Your task to perform on an android device: Go to Wikipedia Image 0: 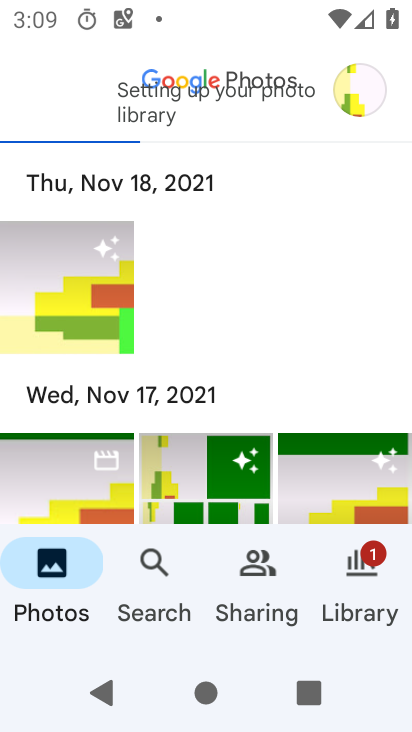
Step 0: press home button
Your task to perform on an android device: Go to Wikipedia Image 1: 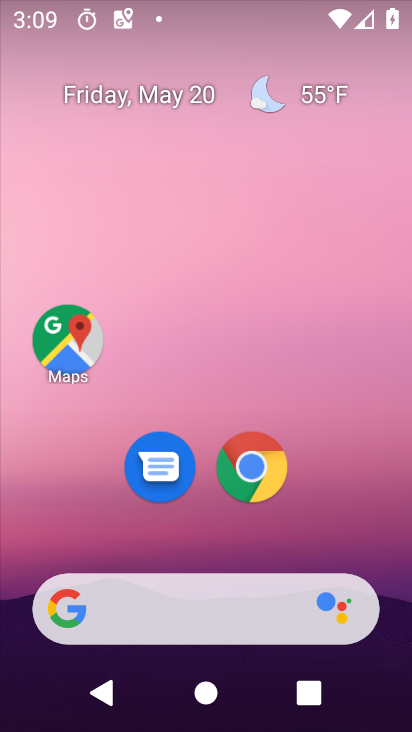
Step 1: click (257, 466)
Your task to perform on an android device: Go to Wikipedia Image 2: 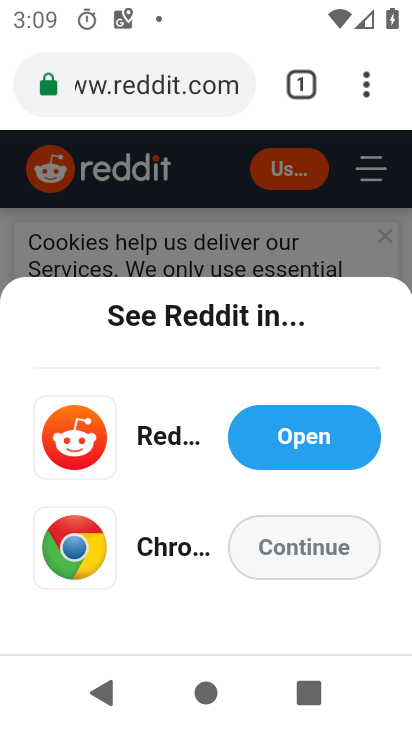
Step 2: click (142, 89)
Your task to perform on an android device: Go to Wikipedia Image 3: 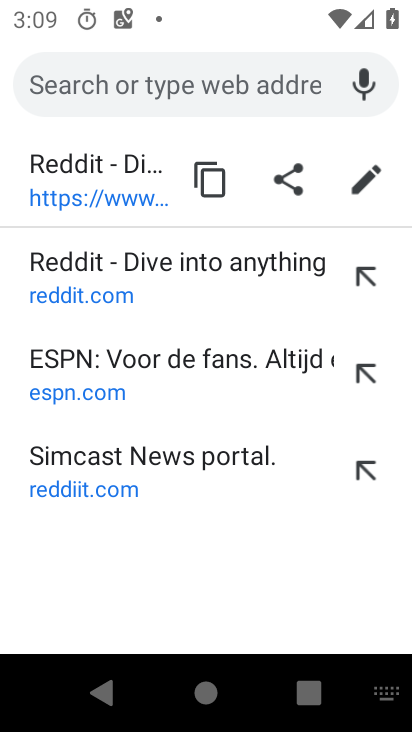
Step 3: type "wikipedia"
Your task to perform on an android device: Go to Wikipedia Image 4: 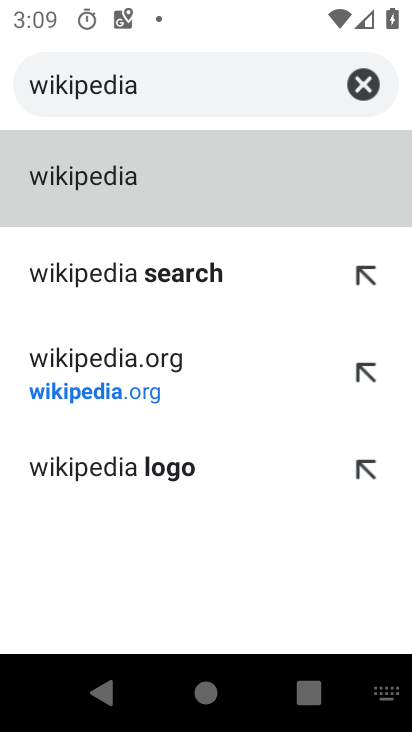
Step 4: click (64, 177)
Your task to perform on an android device: Go to Wikipedia Image 5: 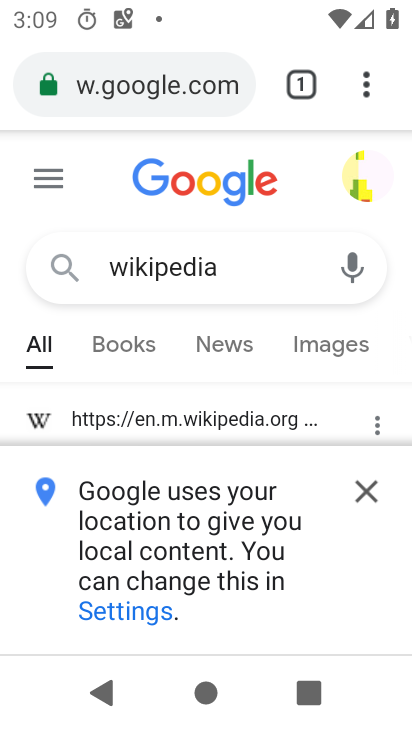
Step 5: click (362, 493)
Your task to perform on an android device: Go to Wikipedia Image 6: 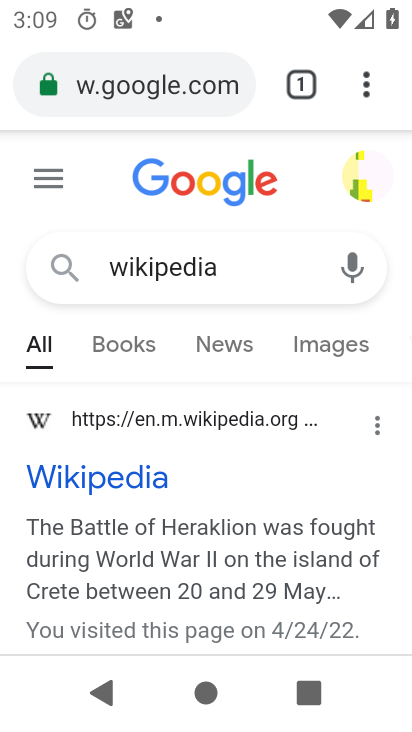
Step 6: click (110, 484)
Your task to perform on an android device: Go to Wikipedia Image 7: 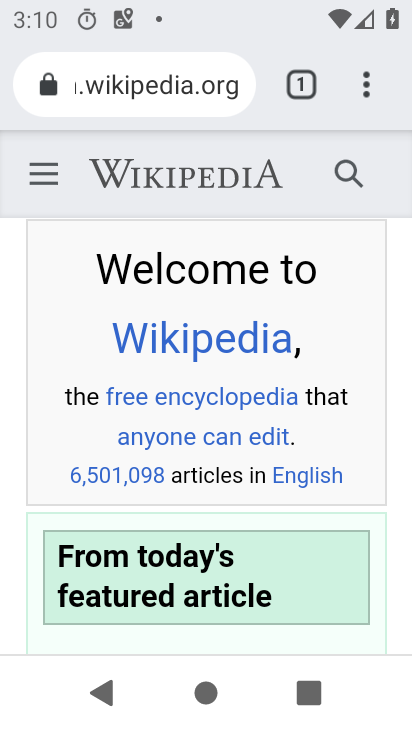
Step 7: task complete